Your task to perform on an android device: turn on translation in the chrome app Image 0: 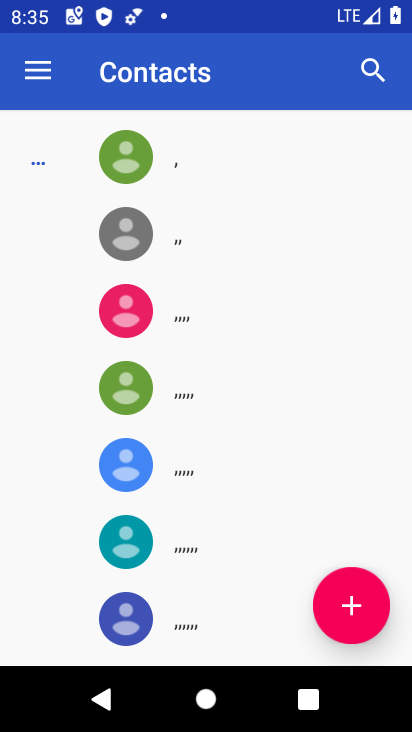
Step 0: press back button
Your task to perform on an android device: turn on translation in the chrome app Image 1: 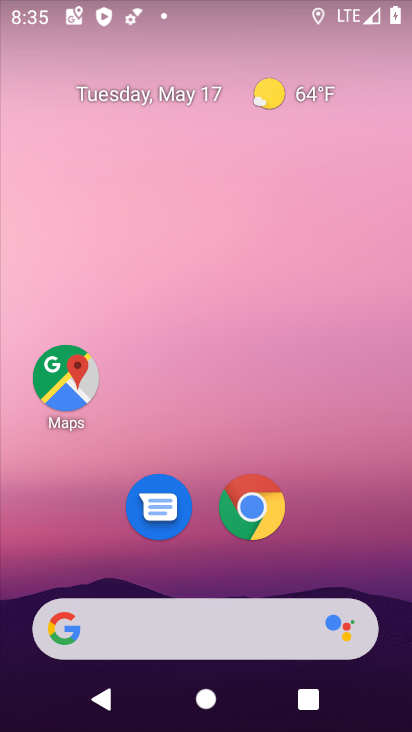
Step 1: click (254, 506)
Your task to perform on an android device: turn on translation in the chrome app Image 2: 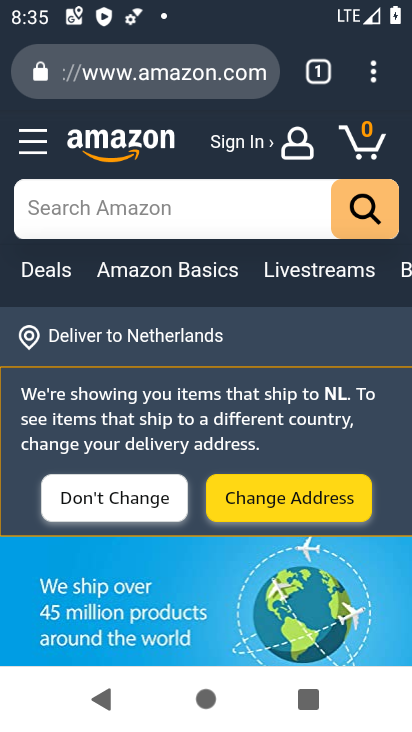
Step 2: click (372, 74)
Your task to perform on an android device: turn on translation in the chrome app Image 3: 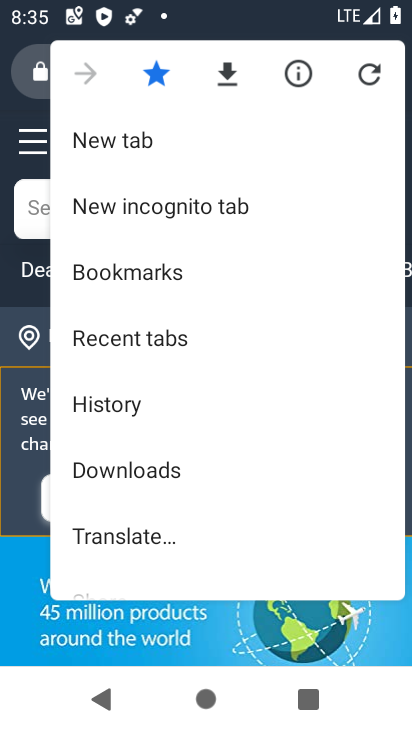
Step 3: drag from (189, 408) to (215, 303)
Your task to perform on an android device: turn on translation in the chrome app Image 4: 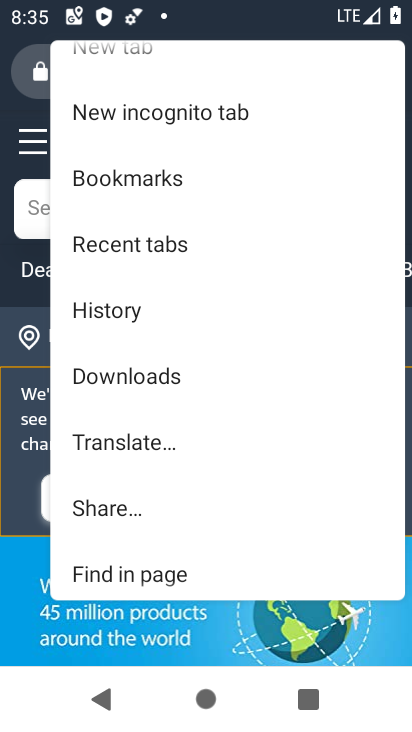
Step 4: drag from (182, 411) to (216, 331)
Your task to perform on an android device: turn on translation in the chrome app Image 5: 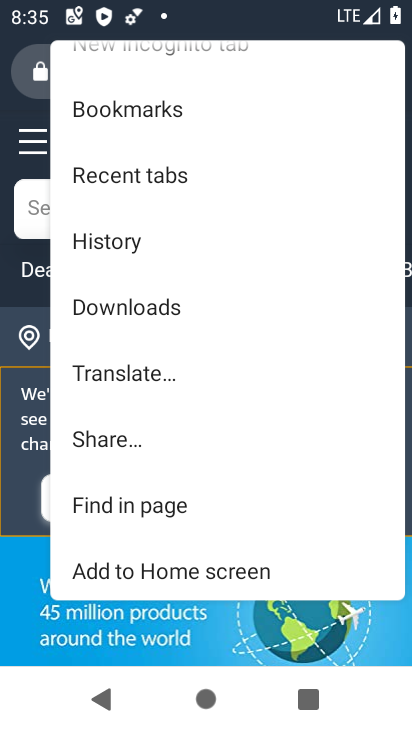
Step 5: drag from (169, 418) to (224, 323)
Your task to perform on an android device: turn on translation in the chrome app Image 6: 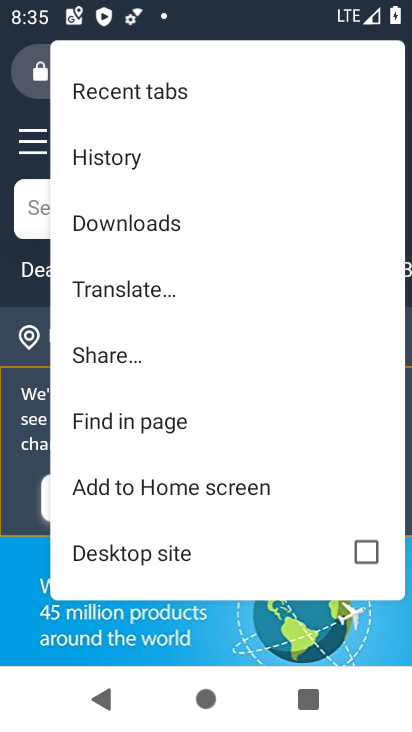
Step 6: drag from (203, 433) to (247, 358)
Your task to perform on an android device: turn on translation in the chrome app Image 7: 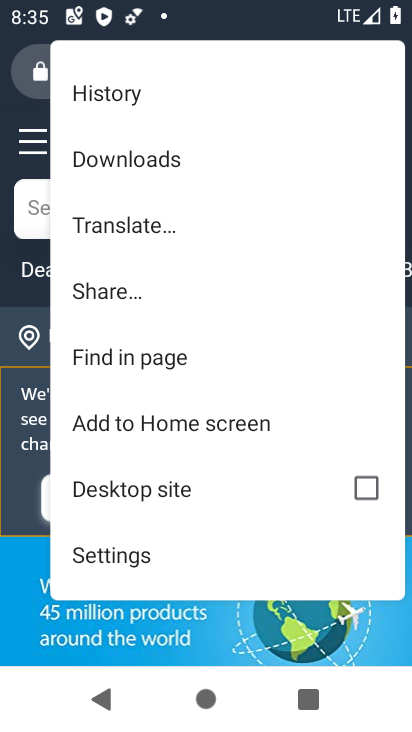
Step 7: drag from (221, 470) to (281, 386)
Your task to perform on an android device: turn on translation in the chrome app Image 8: 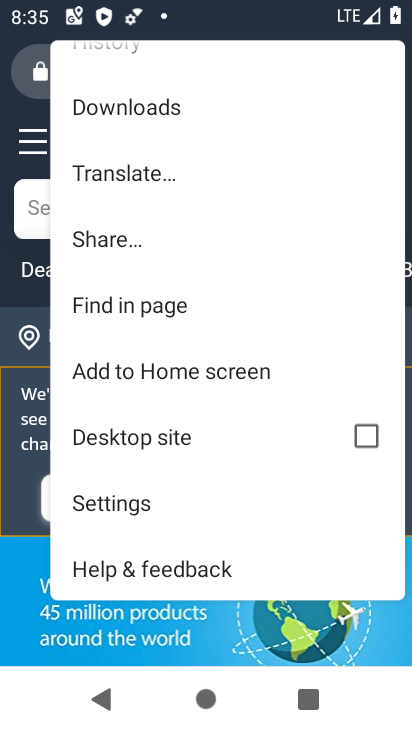
Step 8: click (123, 498)
Your task to perform on an android device: turn on translation in the chrome app Image 9: 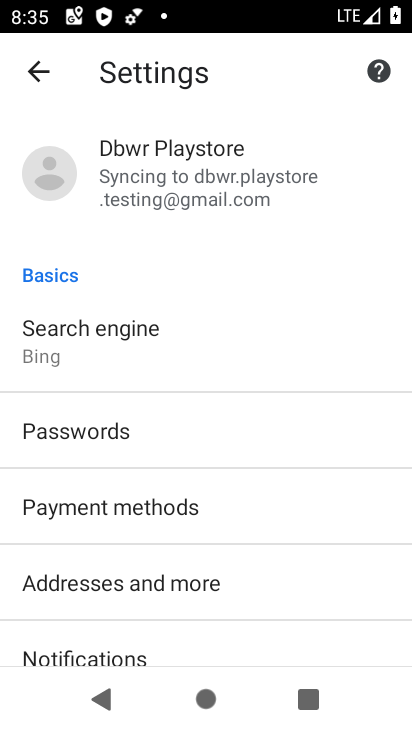
Step 9: drag from (212, 524) to (245, 445)
Your task to perform on an android device: turn on translation in the chrome app Image 10: 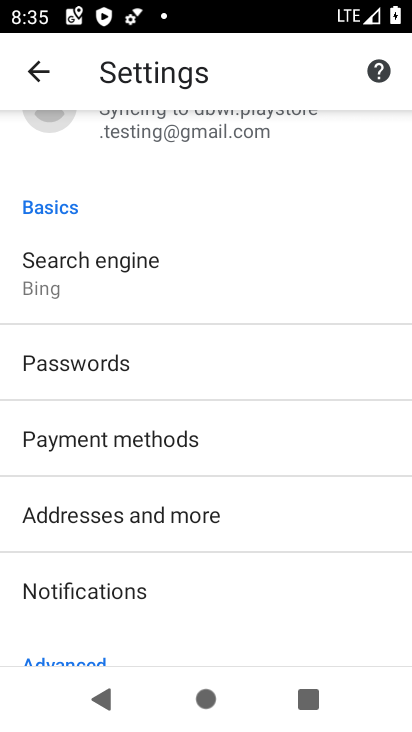
Step 10: drag from (180, 567) to (202, 485)
Your task to perform on an android device: turn on translation in the chrome app Image 11: 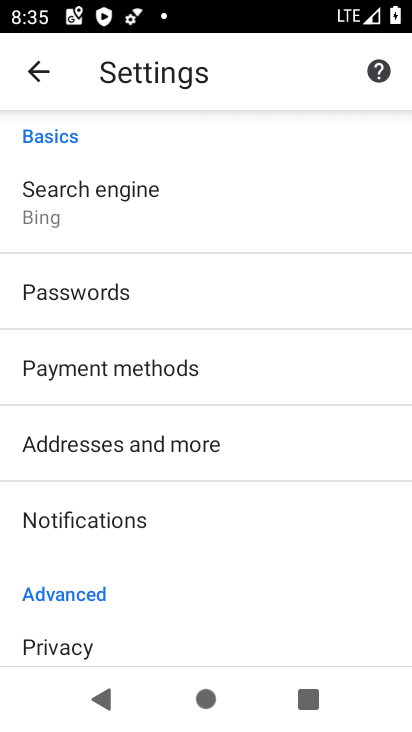
Step 11: drag from (156, 574) to (207, 483)
Your task to perform on an android device: turn on translation in the chrome app Image 12: 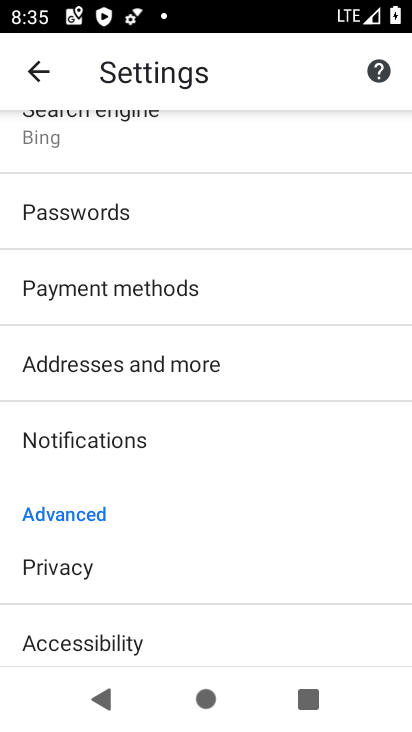
Step 12: drag from (144, 577) to (227, 463)
Your task to perform on an android device: turn on translation in the chrome app Image 13: 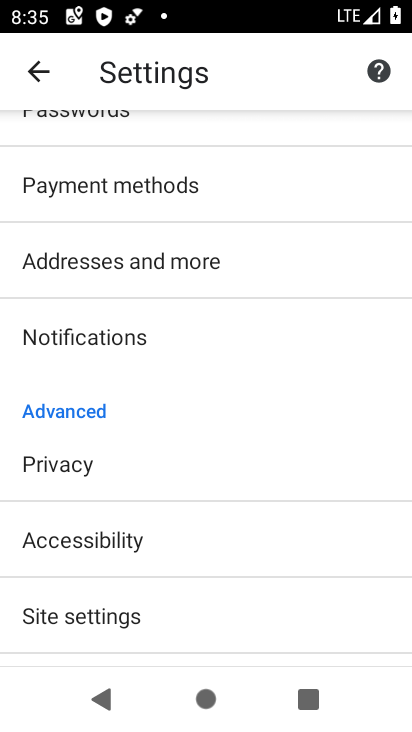
Step 13: drag from (160, 607) to (211, 516)
Your task to perform on an android device: turn on translation in the chrome app Image 14: 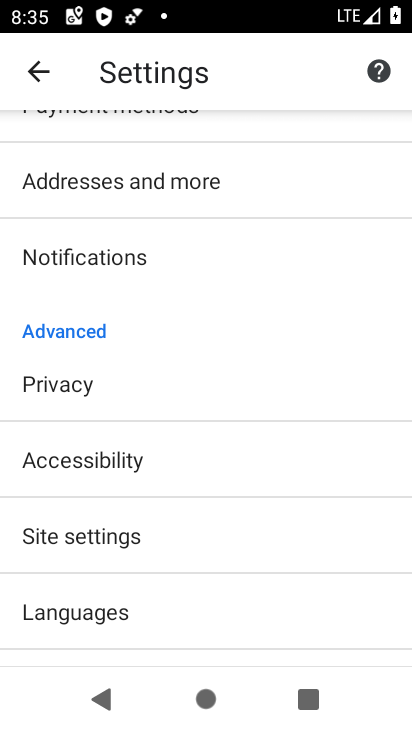
Step 14: click (108, 609)
Your task to perform on an android device: turn on translation in the chrome app Image 15: 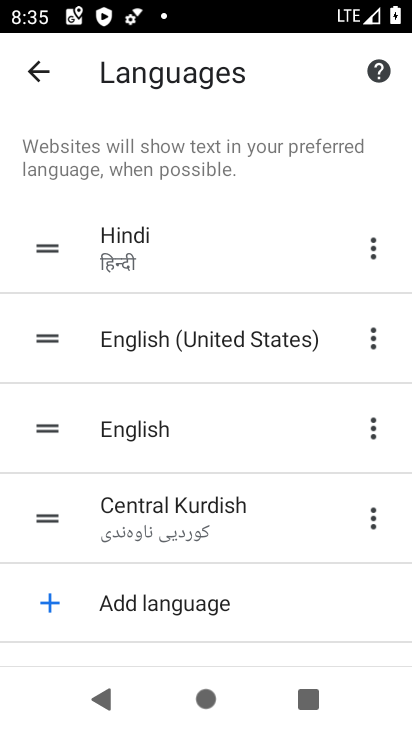
Step 15: drag from (243, 626) to (281, 516)
Your task to perform on an android device: turn on translation in the chrome app Image 16: 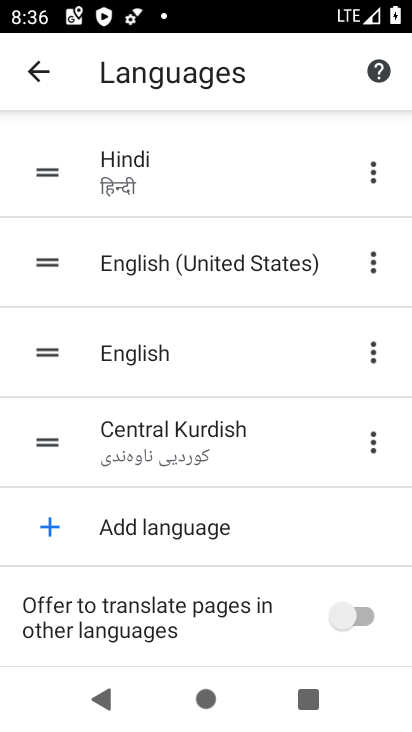
Step 16: click (346, 620)
Your task to perform on an android device: turn on translation in the chrome app Image 17: 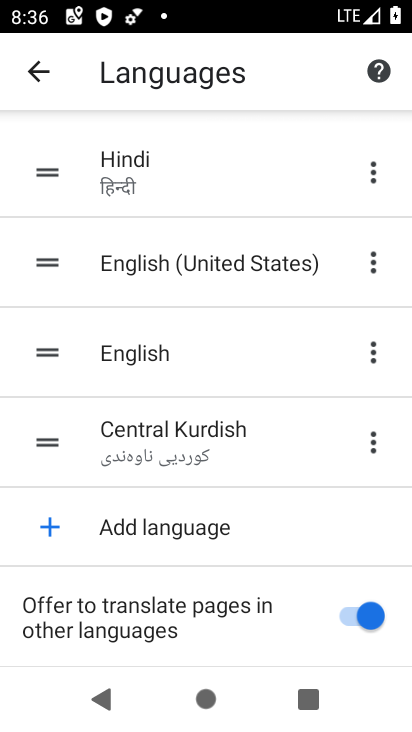
Step 17: task complete